Your task to perform on an android device: Search for pizza restaurants on Maps Image 0: 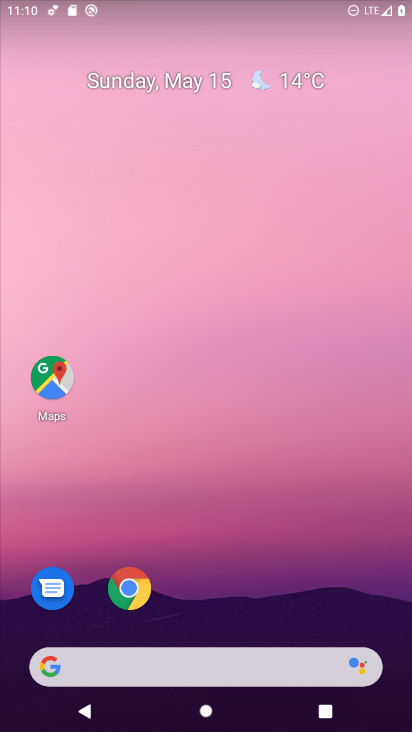
Step 0: click (58, 374)
Your task to perform on an android device: Search for pizza restaurants on Maps Image 1: 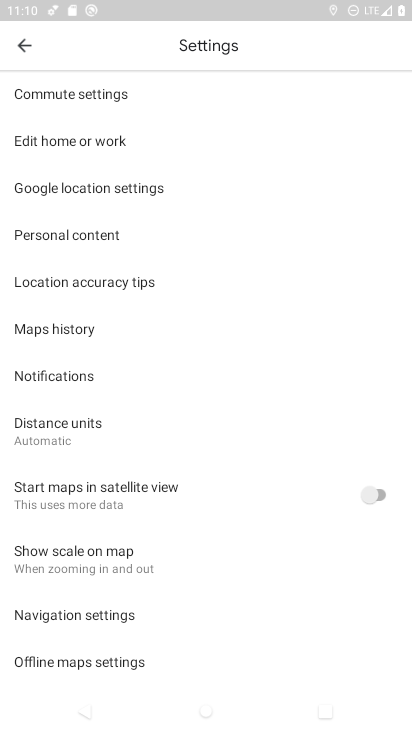
Step 1: click (20, 45)
Your task to perform on an android device: Search for pizza restaurants on Maps Image 2: 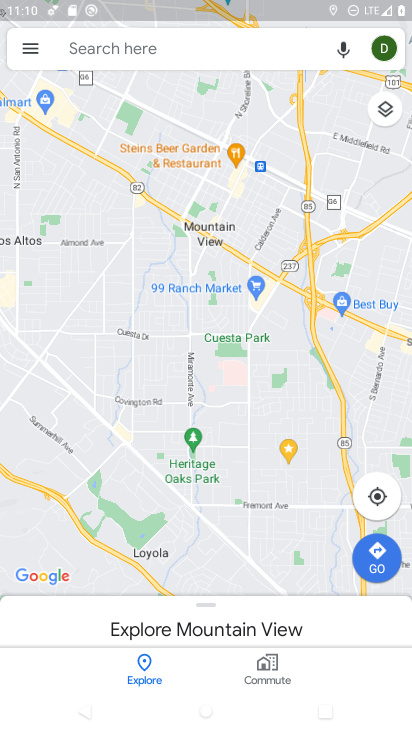
Step 2: click (170, 45)
Your task to perform on an android device: Search for pizza restaurants on Maps Image 3: 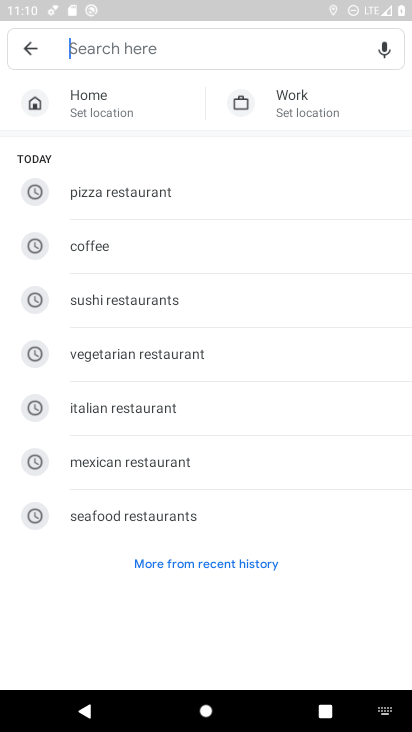
Step 3: type "Pizza restaurants"
Your task to perform on an android device: Search for pizza restaurants on Maps Image 4: 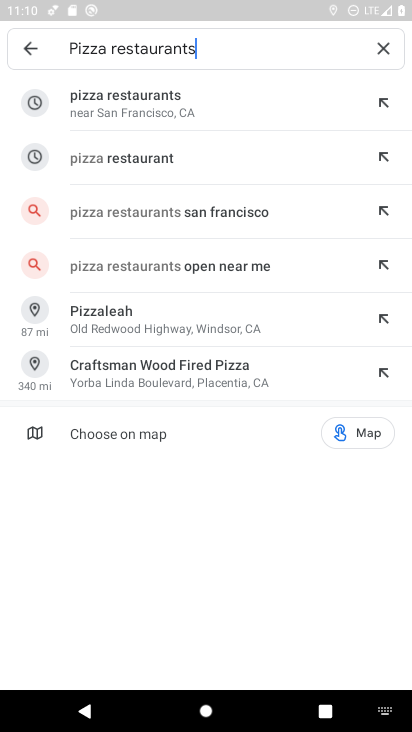
Step 4: click (187, 109)
Your task to perform on an android device: Search for pizza restaurants on Maps Image 5: 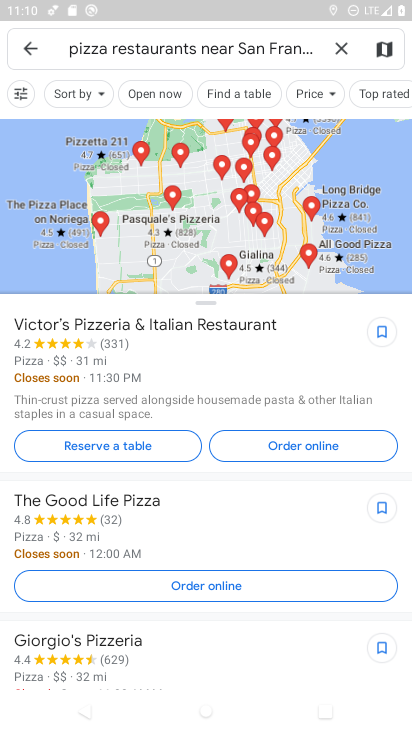
Step 5: task complete